Your task to perform on an android device: Open calendar and show me the third week of next month Image 0: 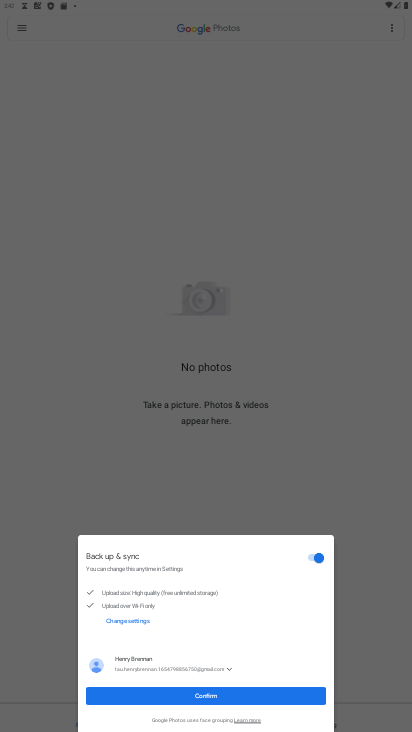
Step 0: press home button
Your task to perform on an android device: Open calendar and show me the third week of next month Image 1: 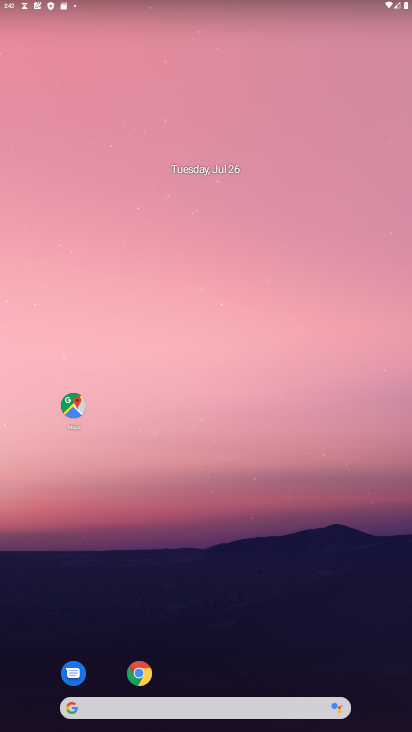
Step 1: drag from (191, 704) to (141, 92)
Your task to perform on an android device: Open calendar and show me the third week of next month Image 2: 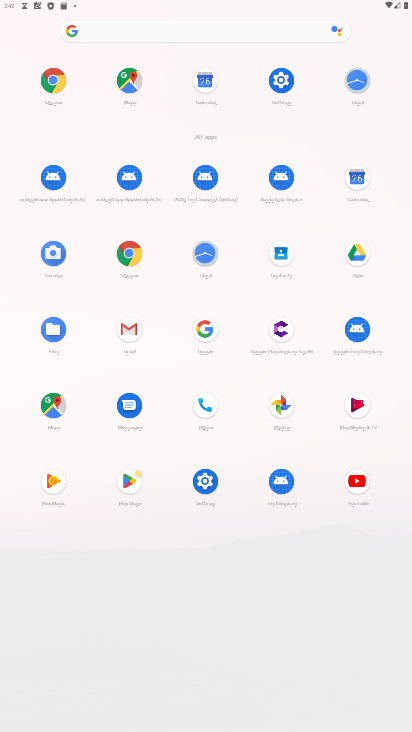
Step 2: click (204, 83)
Your task to perform on an android device: Open calendar and show me the third week of next month Image 3: 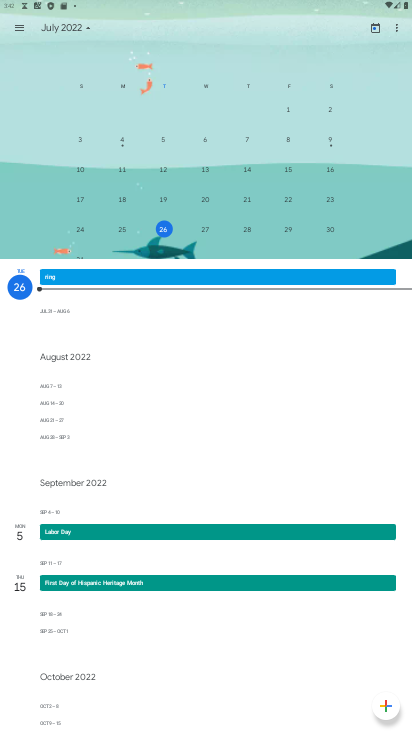
Step 3: click (376, 29)
Your task to perform on an android device: Open calendar and show me the third week of next month Image 4: 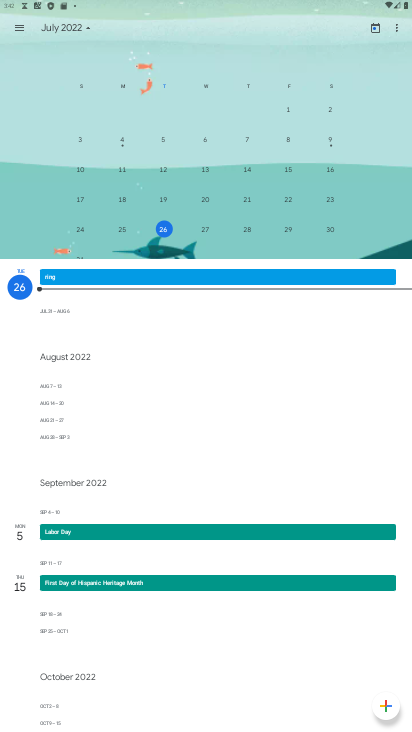
Step 4: drag from (327, 183) to (7, 251)
Your task to perform on an android device: Open calendar and show me the third week of next month Image 5: 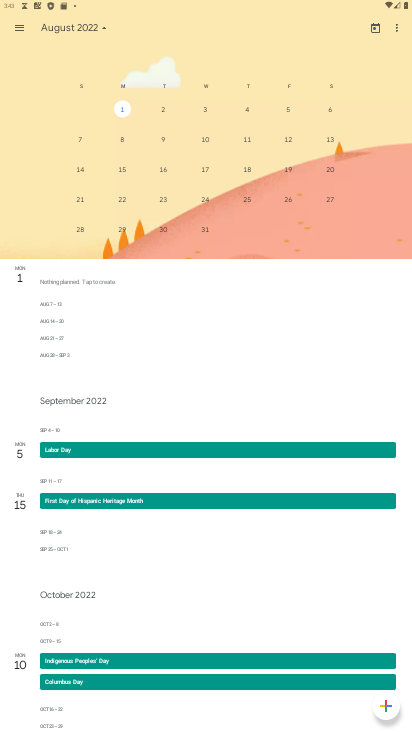
Step 5: click (125, 168)
Your task to perform on an android device: Open calendar and show me the third week of next month Image 6: 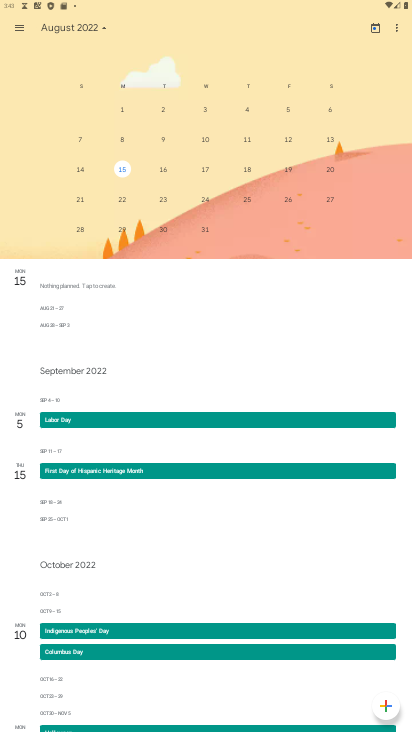
Step 6: click (17, 28)
Your task to perform on an android device: Open calendar and show me the third week of next month Image 7: 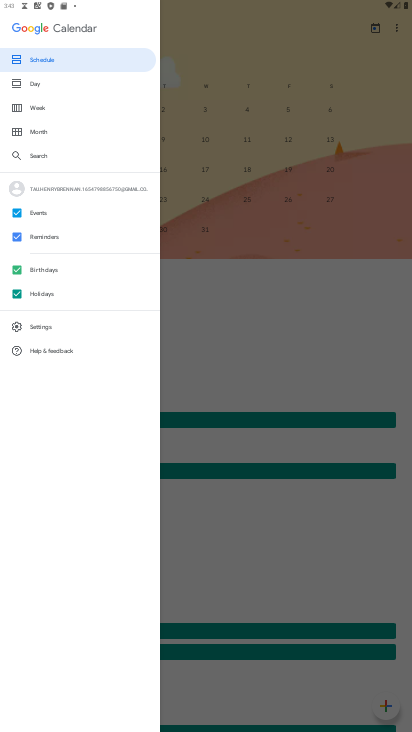
Step 7: click (46, 109)
Your task to perform on an android device: Open calendar and show me the third week of next month Image 8: 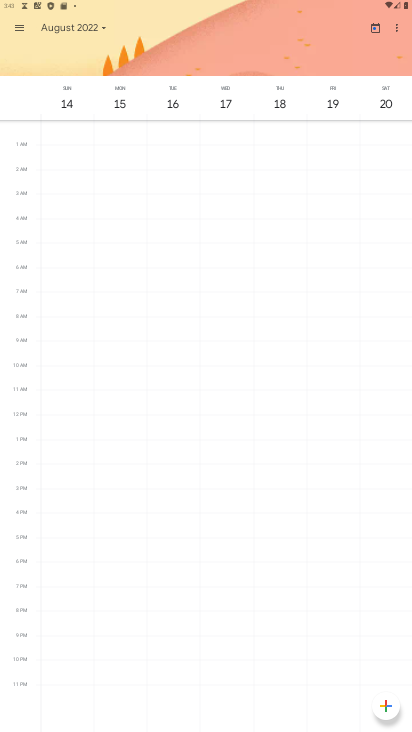
Step 8: task complete